Your task to perform on an android device: toggle notifications settings in the gmail app Image 0: 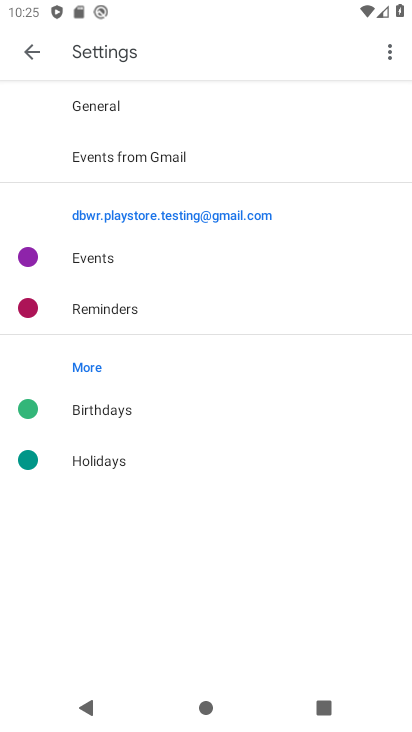
Step 0: press back button
Your task to perform on an android device: toggle notifications settings in the gmail app Image 1: 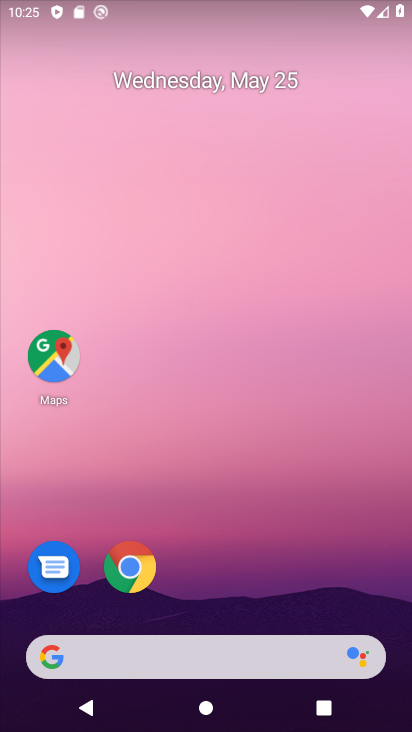
Step 1: drag from (206, 616) to (334, 3)
Your task to perform on an android device: toggle notifications settings in the gmail app Image 2: 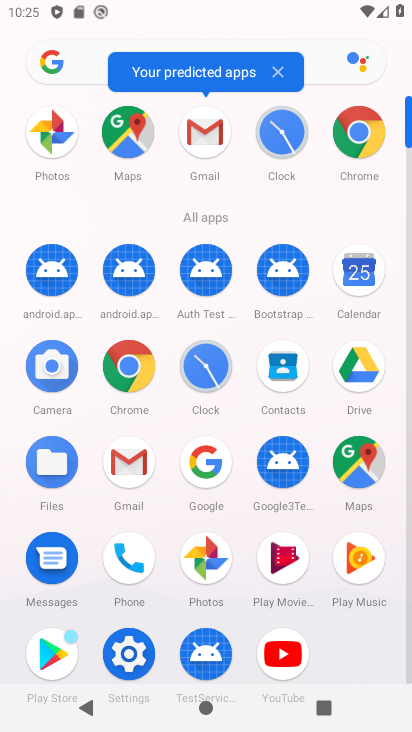
Step 2: click (141, 463)
Your task to perform on an android device: toggle notifications settings in the gmail app Image 3: 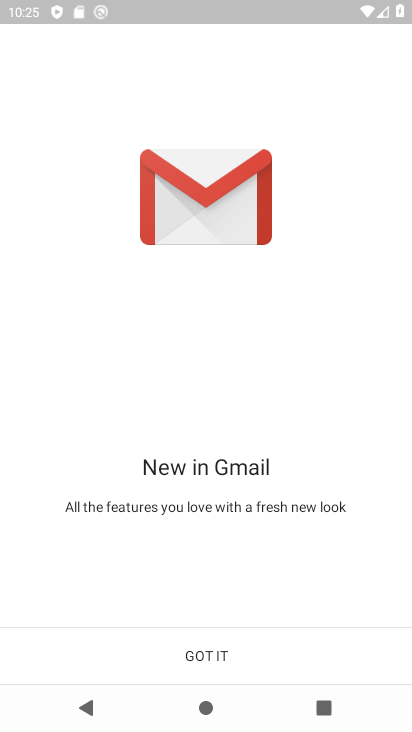
Step 3: click (169, 646)
Your task to perform on an android device: toggle notifications settings in the gmail app Image 4: 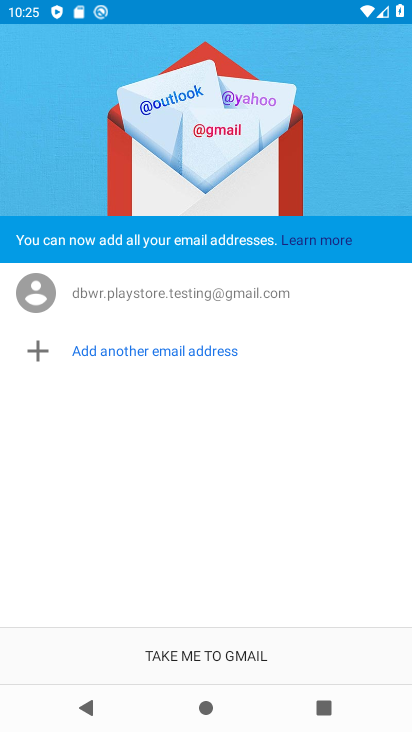
Step 4: click (169, 646)
Your task to perform on an android device: toggle notifications settings in the gmail app Image 5: 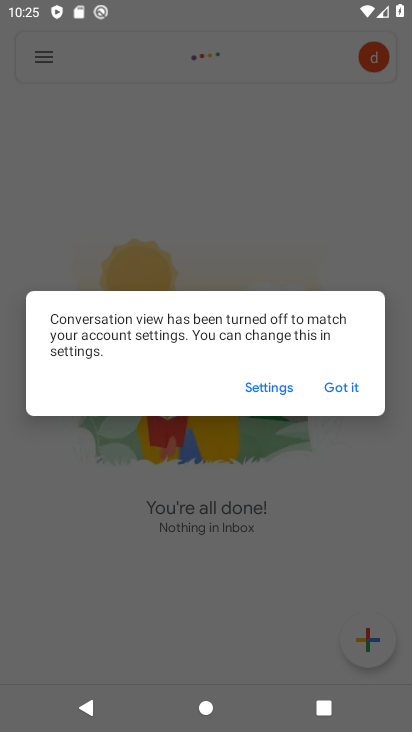
Step 5: click (351, 391)
Your task to perform on an android device: toggle notifications settings in the gmail app Image 6: 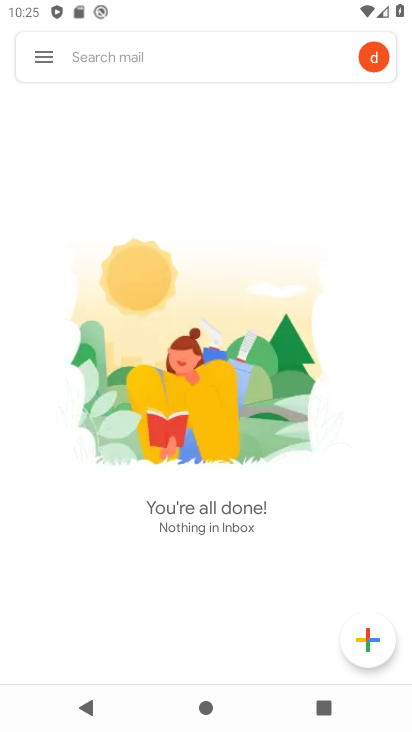
Step 6: click (329, 382)
Your task to perform on an android device: toggle notifications settings in the gmail app Image 7: 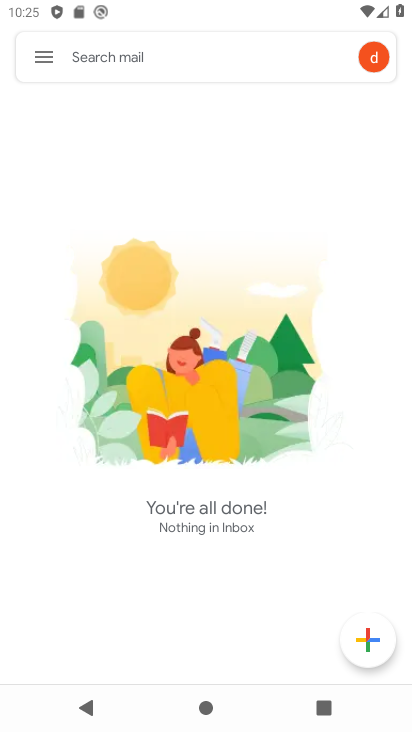
Step 7: click (35, 50)
Your task to perform on an android device: toggle notifications settings in the gmail app Image 8: 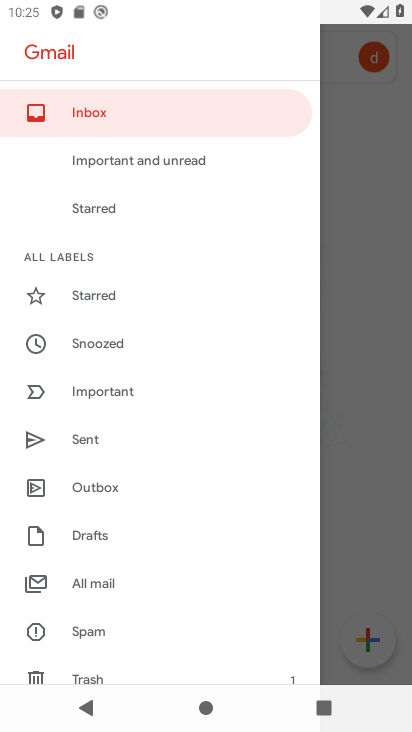
Step 8: drag from (231, 486) to (198, 128)
Your task to perform on an android device: toggle notifications settings in the gmail app Image 9: 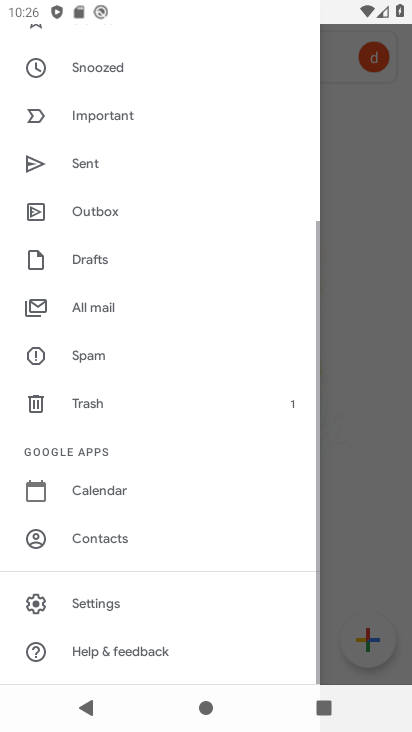
Step 9: drag from (115, 594) to (95, 323)
Your task to perform on an android device: toggle notifications settings in the gmail app Image 10: 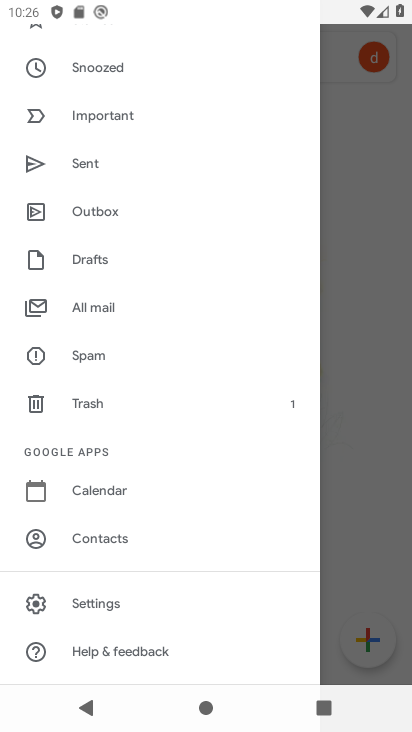
Step 10: click (93, 609)
Your task to perform on an android device: toggle notifications settings in the gmail app Image 11: 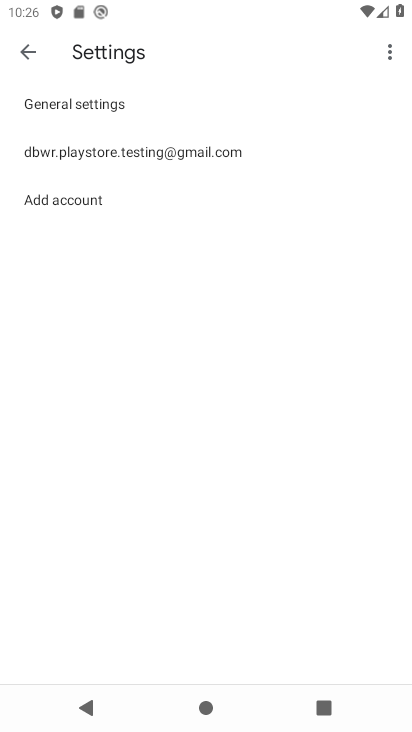
Step 11: click (113, 102)
Your task to perform on an android device: toggle notifications settings in the gmail app Image 12: 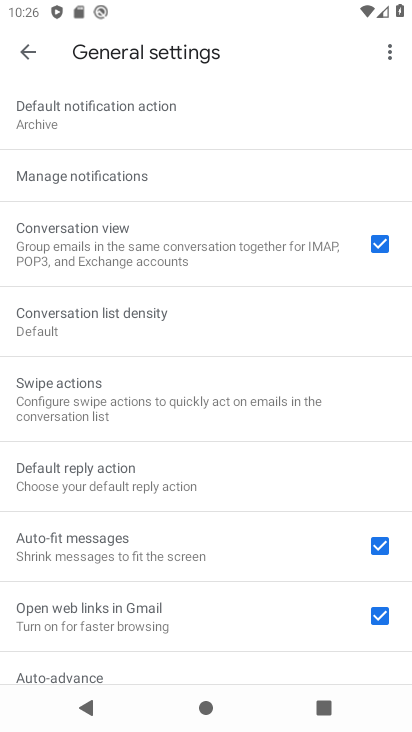
Step 12: click (221, 176)
Your task to perform on an android device: toggle notifications settings in the gmail app Image 13: 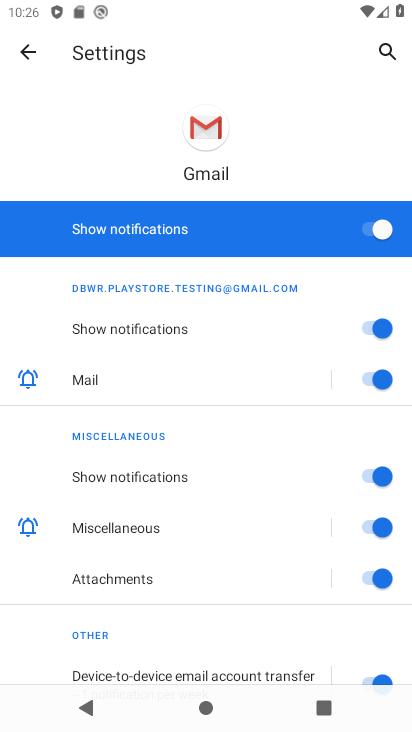
Step 13: click (369, 227)
Your task to perform on an android device: toggle notifications settings in the gmail app Image 14: 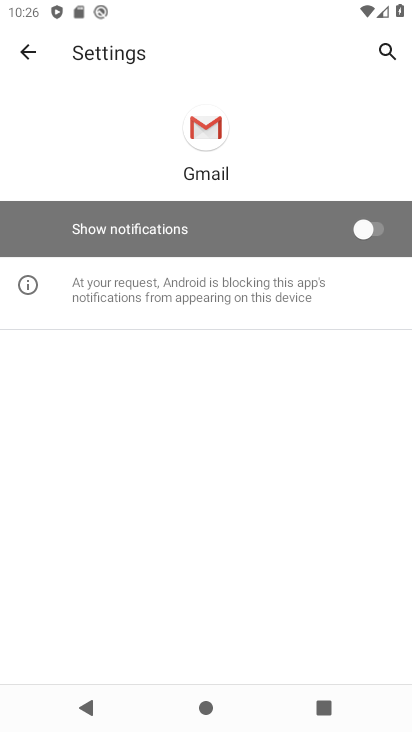
Step 14: task complete